Your task to perform on an android device: change the clock display to show seconds Image 0: 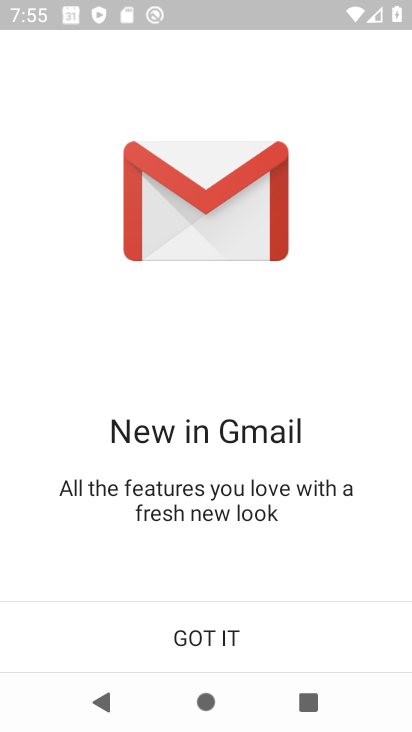
Step 0: press home button
Your task to perform on an android device: change the clock display to show seconds Image 1: 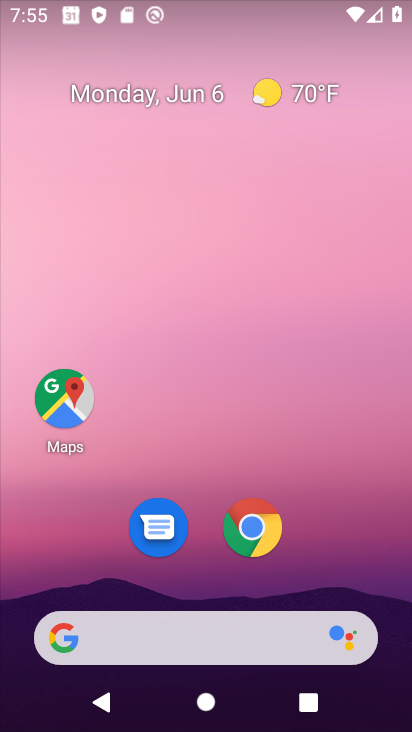
Step 1: drag from (202, 611) to (210, 465)
Your task to perform on an android device: change the clock display to show seconds Image 2: 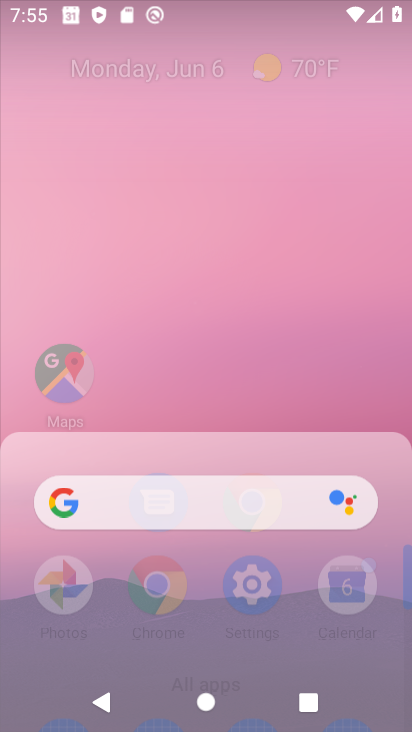
Step 2: click (207, 330)
Your task to perform on an android device: change the clock display to show seconds Image 3: 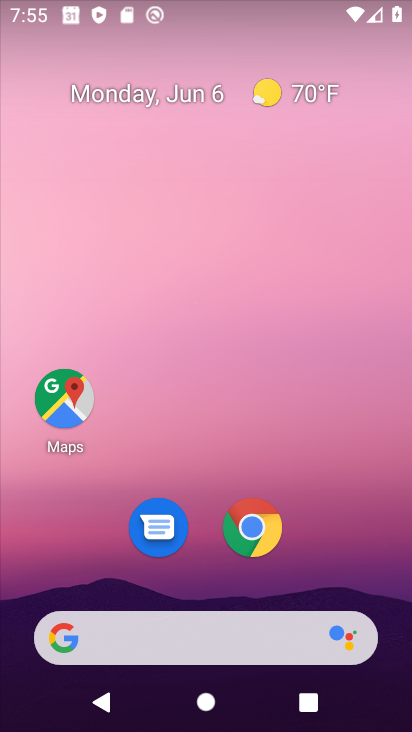
Step 3: drag from (175, 576) to (193, 272)
Your task to perform on an android device: change the clock display to show seconds Image 4: 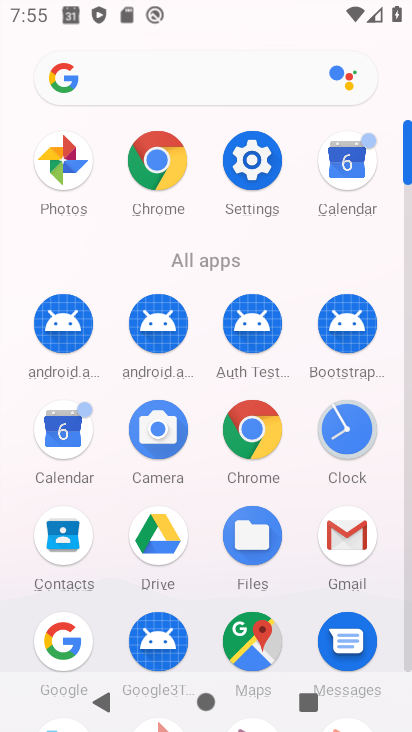
Step 4: click (354, 433)
Your task to perform on an android device: change the clock display to show seconds Image 5: 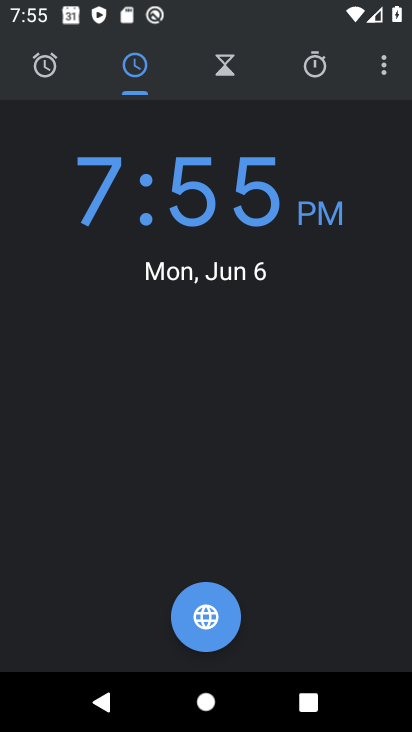
Step 5: click (384, 79)
Your task to perform on an android device: change the clock display to show seconds Image 6: 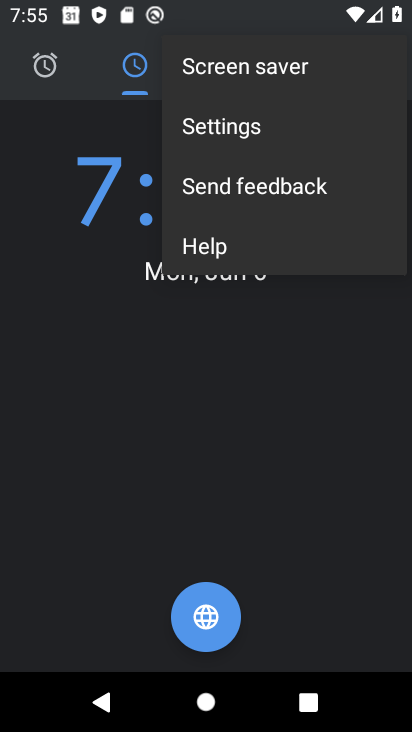
Step 6: click (256, 131)
Your task to perform on an android device: change the clock display to show seconds Image 7: 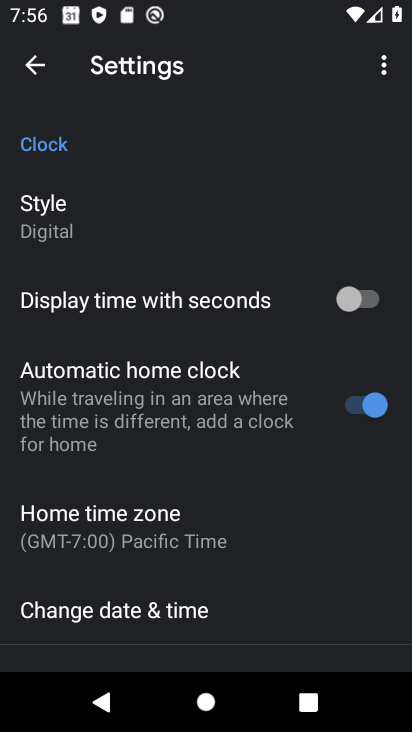
Step 7: click (182, 308)
Your task to perform on an android device: change the clock display to show seconds Image 8: 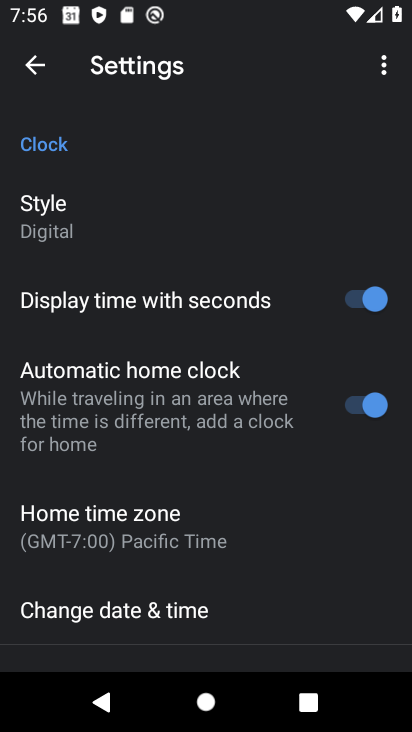
Step 8: task complete